Your task to perform on an android device: turn on data saver in the chrome app Image 0: 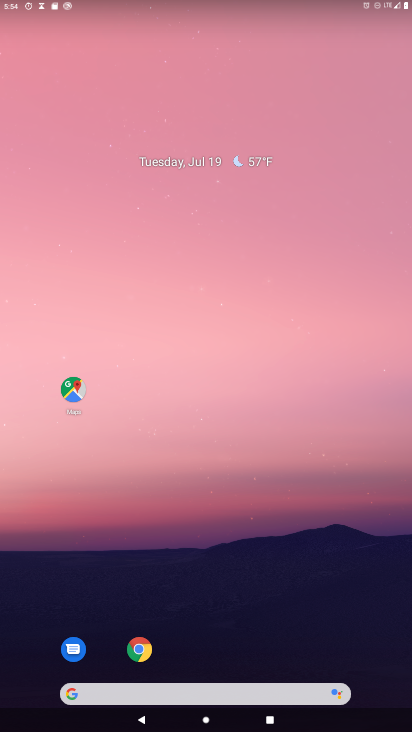
Step 0: click (134, 655)
Your task to perform on an android device: turn on data saver in the chrome app Image 1: 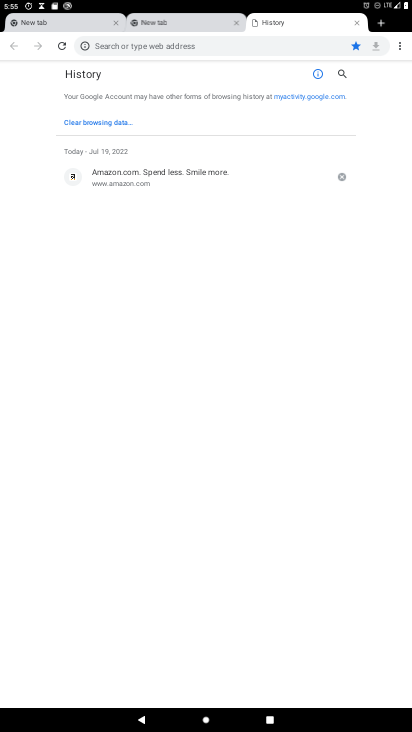
Step 1: click (399, 41)
Your task to perform on an android device: turn on data saver in the chrome app Image 2: 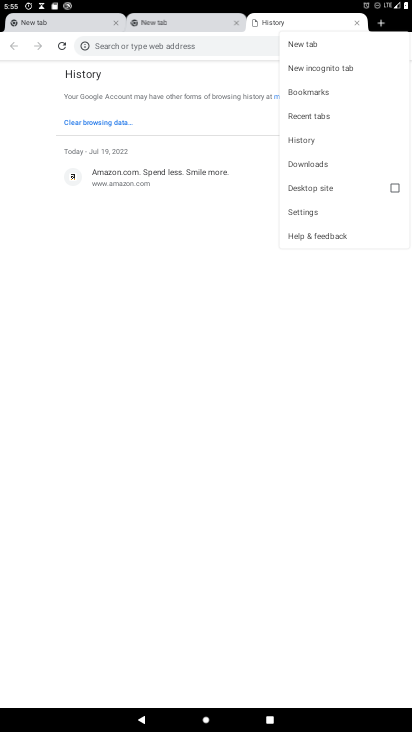
Step 2: click (300, 211)
Your task to perform on an android device: turn on data saver in the chrome app Image 3: 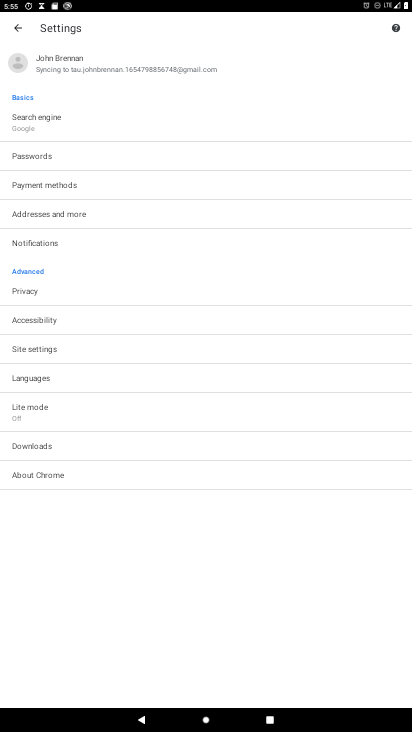
Step 3: click (26, 412)
Your task to perform on an android device: turn on data saver in the chrome app Image 4: 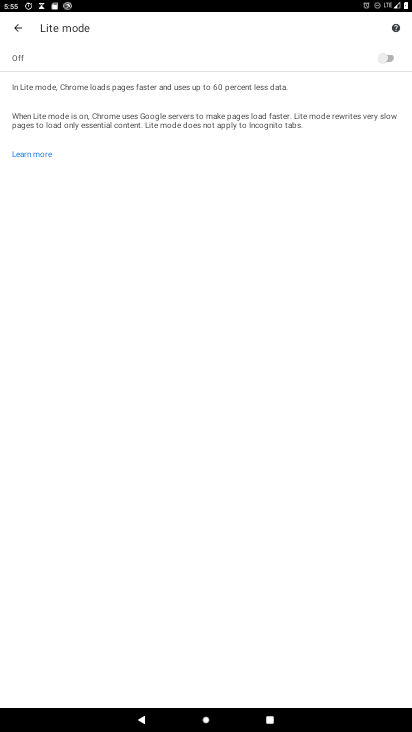
Step 4: click (394, 64)
Your task to perform on an android device: turn on data saver in the chrome app Image 5: 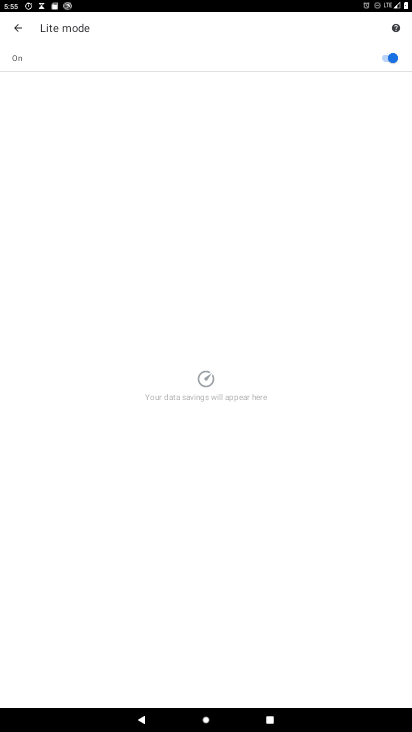
Step 5: task complete